Your task to perform on an android device: open a bookmark in the chrome app Image 0: 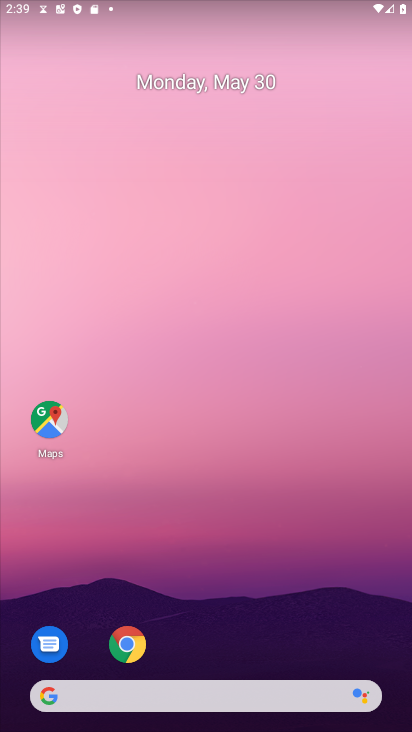
Step 0: click (116, 638)
Your task to perform on an android device: open a bookmark in the chrome app Image 1: 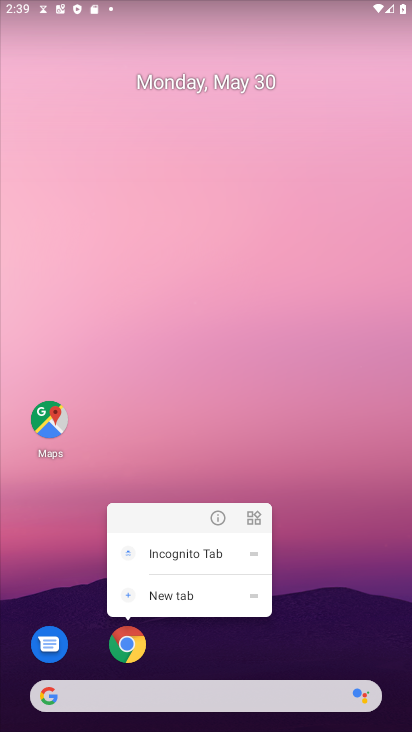
Step 1: click (139, 642)
Your task to perform on an android device: open a bookmark in the chrome app Image 2: 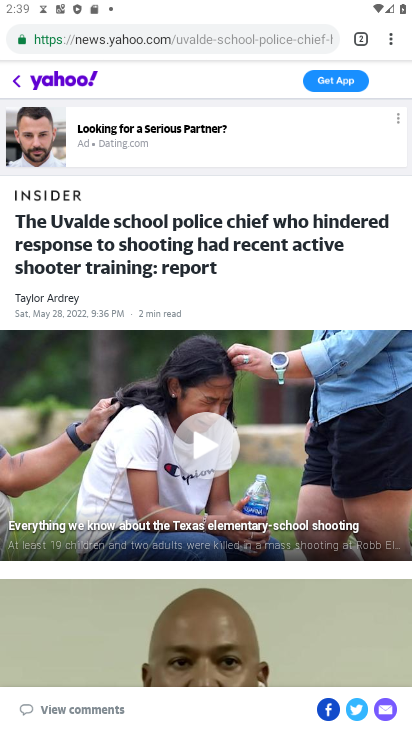
Step 2: click (388, 37)
Your task to perform on an android device: open a bookmark in the chrome app Image 3: 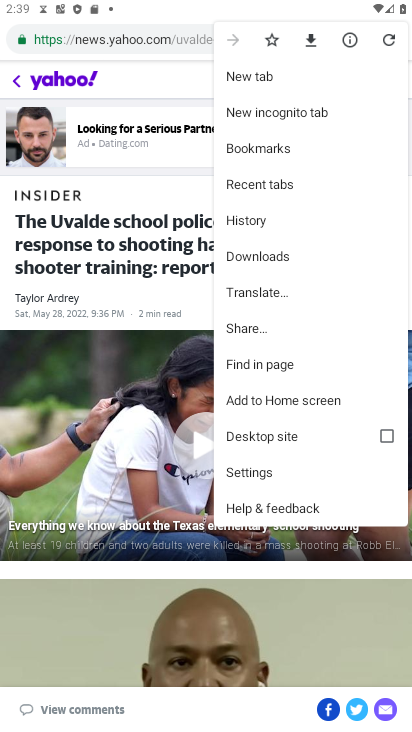
Step 3: click (288, 141)
Your task to perform on an android device: open a bookmark in the chrome app Image 4: 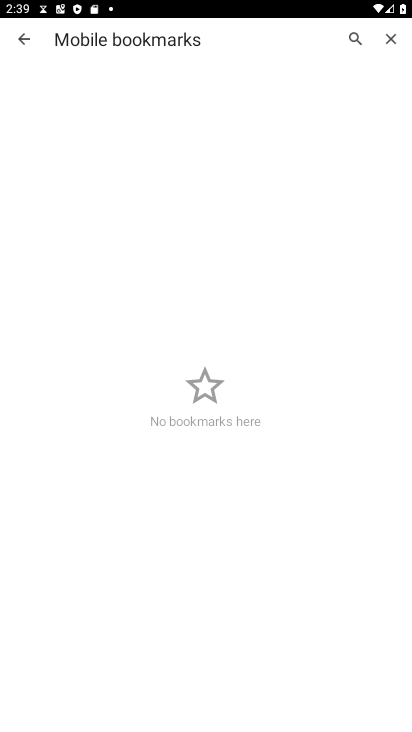
Step 4: task complete